Your task to perform on an android device: Open Reddit.com Image 0: 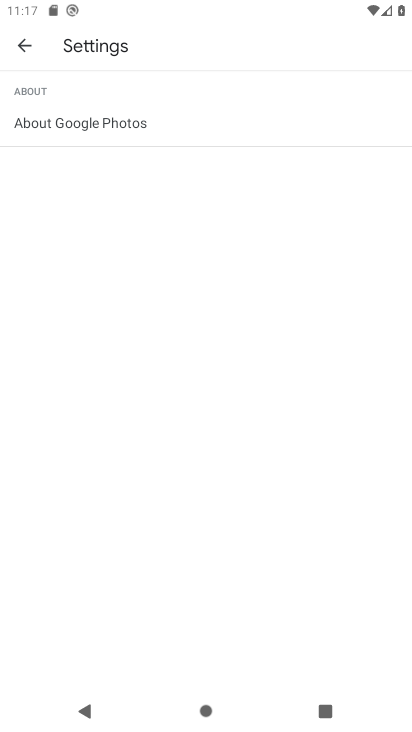
Step 0: press home button
Your task to perform on an android device: Open Reddit.com Image 1: 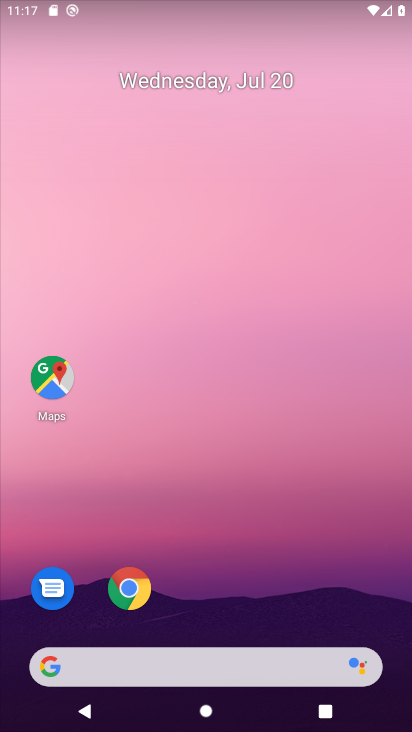
Step 1: click (128, 581)
Your task to perform on an android device: Open Reddit.com Image 2: 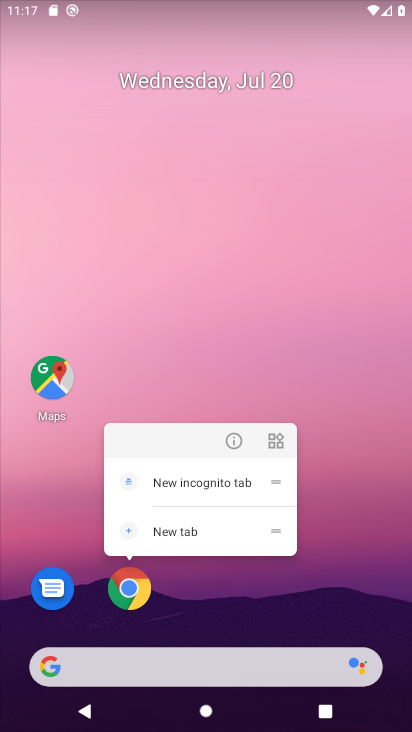
Step 2: click (127, 582)
Your task to perform on an android device: Open Reddit.com Image 3: 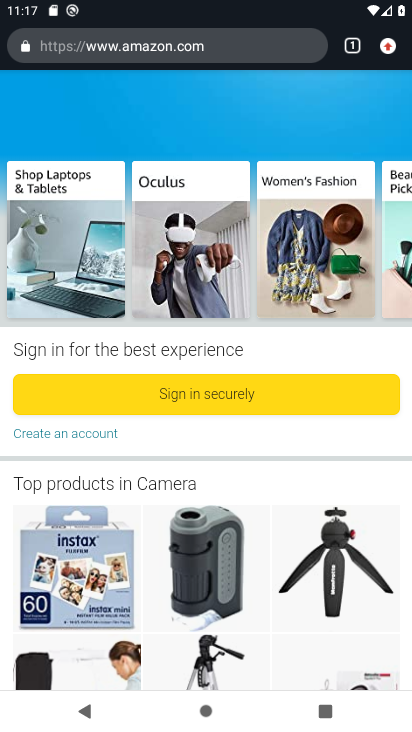
Step 3: click (351, 42)
Your task to perform on an android device: Open Reddit.com Image 4: 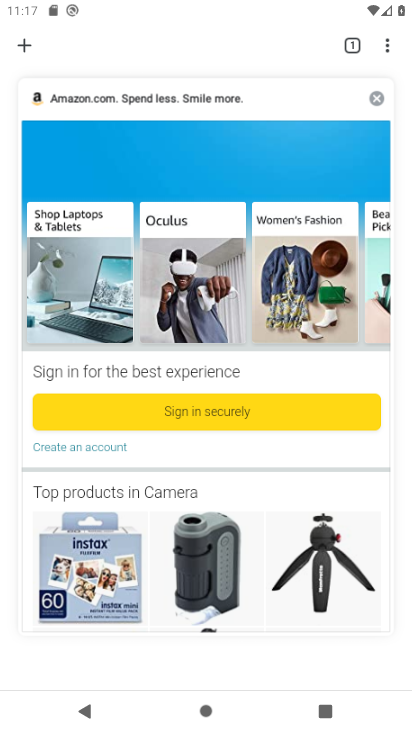
Step 4: click (21, 40)
Your task to perform on an android device: Open Reddit.com Image 5: 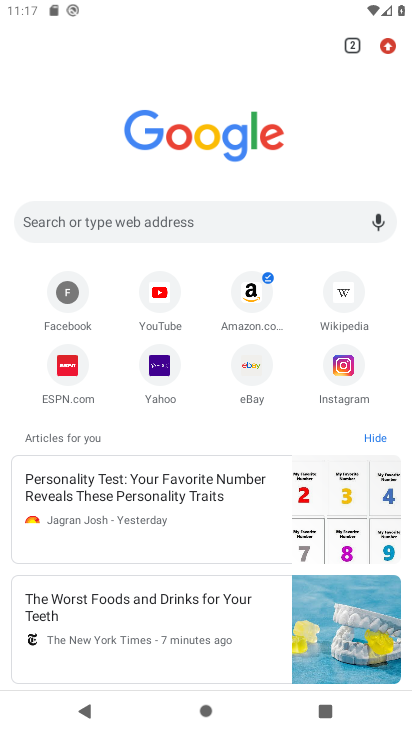
Step 5: click (86, 215)
Your task to perform on an android device: Open Reddit.com Image 6: 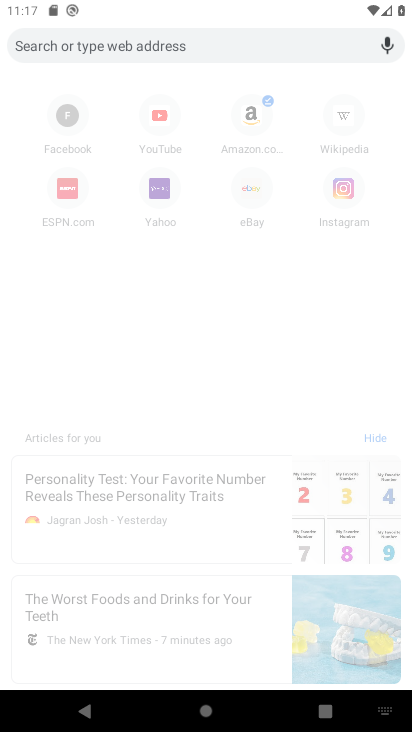
Step 6: type "reddit.com"
Your task to perform on an android device: Open Reddit.com Image 7: 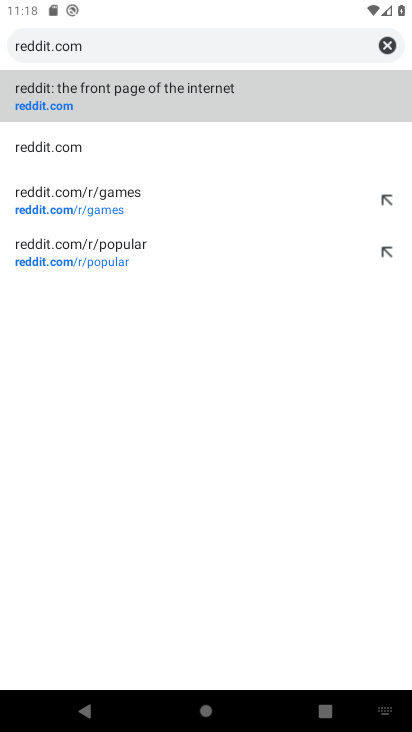
Step 7: click (99, 96)
Your task to perform on an android device: Open Reddit.com Image 8: 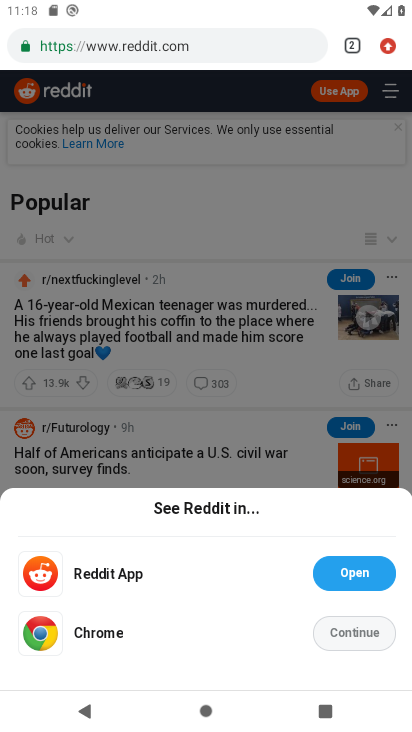
Step 8: click (349, 628)
Your task to perform on an android device: Open Reddit.com Image 9: 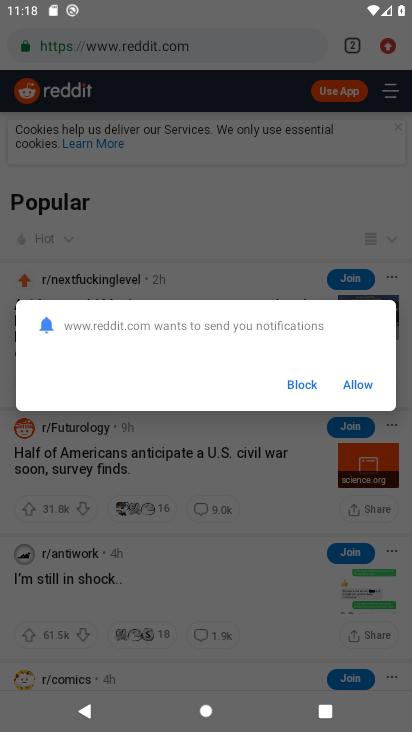
Step 9: click (355, 382)
Your task to perform on an android device: Open Reddit.com Image 10: 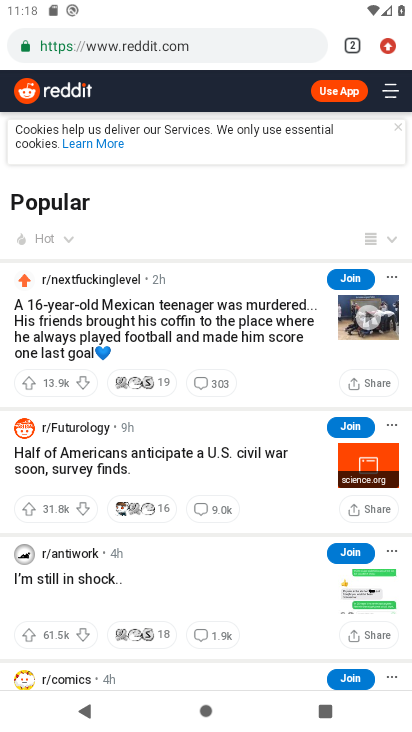
Step 10: task complete